Your task to perform on an android device: open app "Skype" (install if not already installed) Image 0: 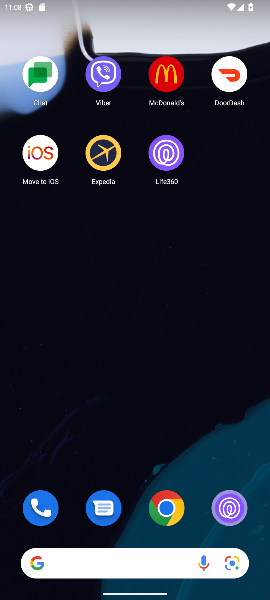
Step 0: drag from (157, 562) to (190, 74)
Your task to perform on an android device: open app "Skype" (install if not already installed) Image 1: 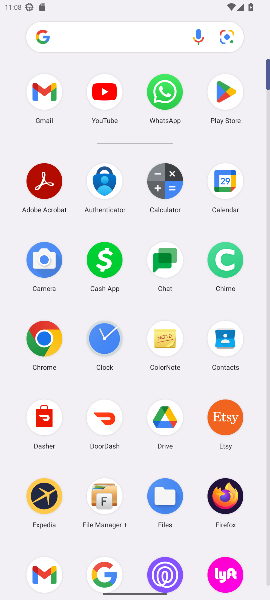
Step 1: drag from (127, 526) to (151, 188)
Your task to perform on an android device: open app "Skype" (install if not already installed) Image 2: 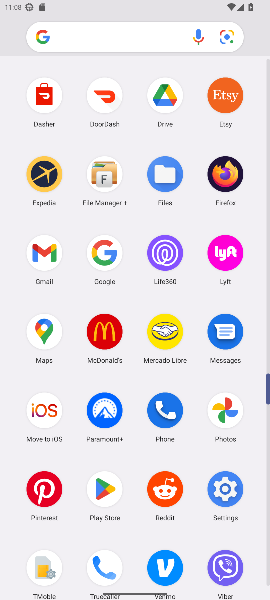
Step 2: click (108, 480)
Your task to perform on an android device: open app "Skype" (install if not already installed) Image 3: 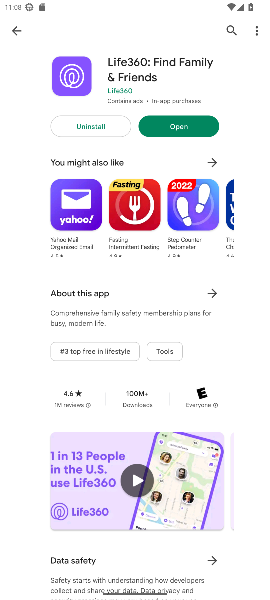
Step 3: click (230, 24)
Your task to perform on an android device: open app "Skype" (install if not already installed) Image 4: 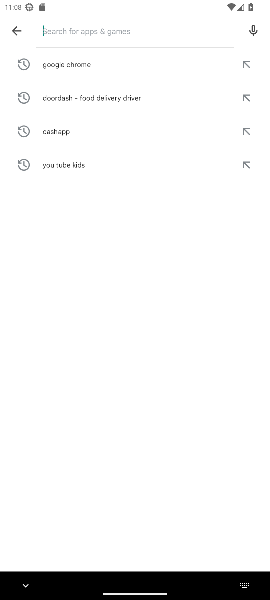
Step 4: type "skype"
Your task to perform on an android device: open app "Skype" (install if not already installed) Image 5: 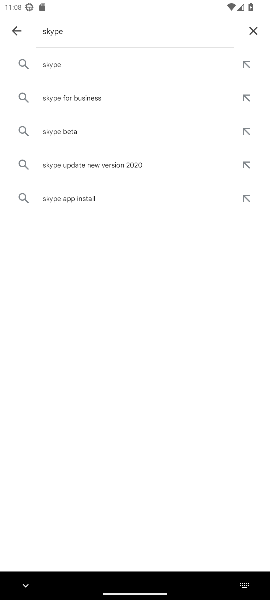
Step 5: click (74, 64)
Your task to perform on an android device: open app "Skype" (install if not already installed) Image 6: 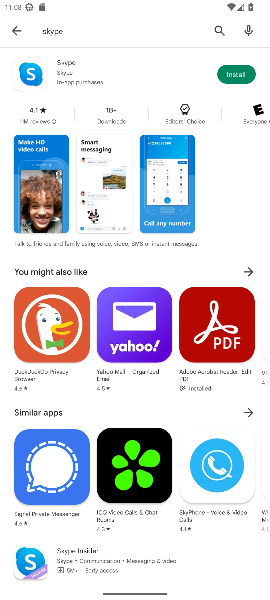
Step 6: click (228, 75)
Your task to perform on an android device: open app "Skype" (install if not already installed) Image 7: 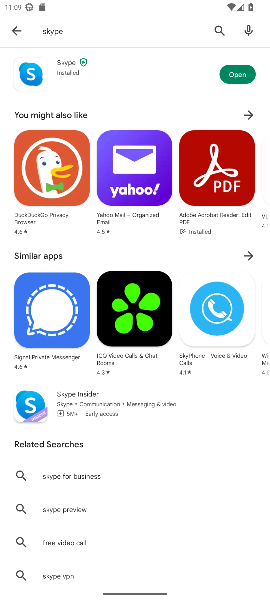
Step 7: click (250, 77)
Your task to perform on an android device: open app "Skype" (install if not already installed) Image 8: 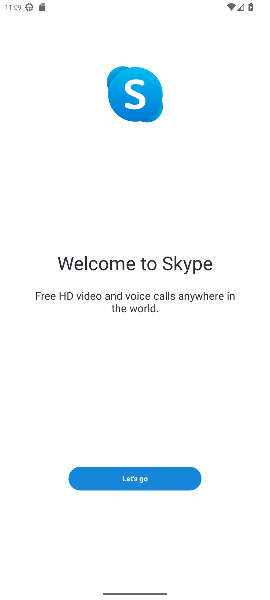
Step 8: task complete